Your task to perform on an android device: change text size in settings app Image 0: 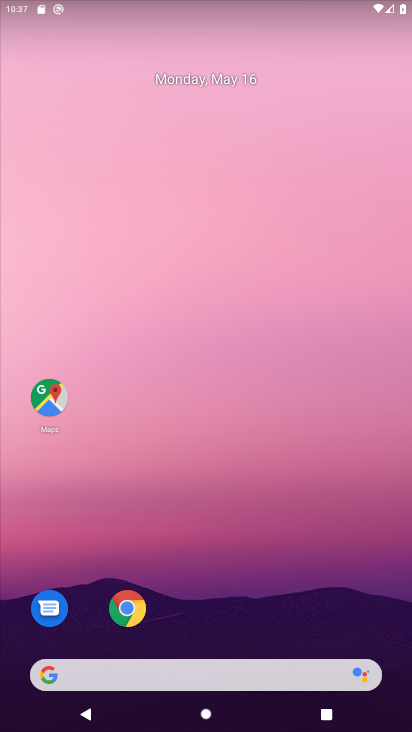
Step 0: drag from (319, 594) to (314, 78)
Your task to perform on an android device: change text size in settings app Image 1: 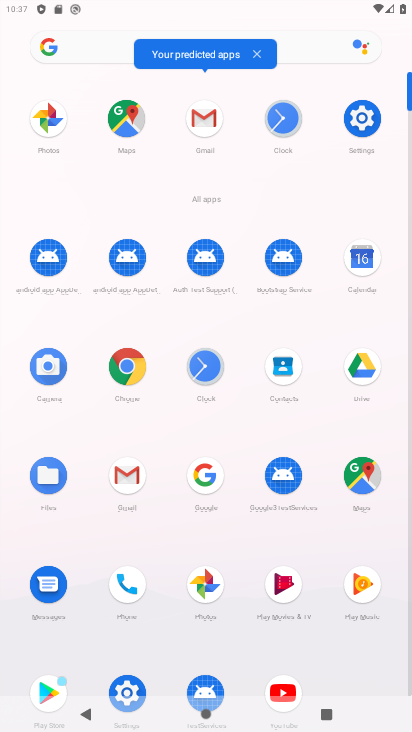
Step 1: click (356, 118)
Your task to perform on an android device: change text size in settings app Image 2: 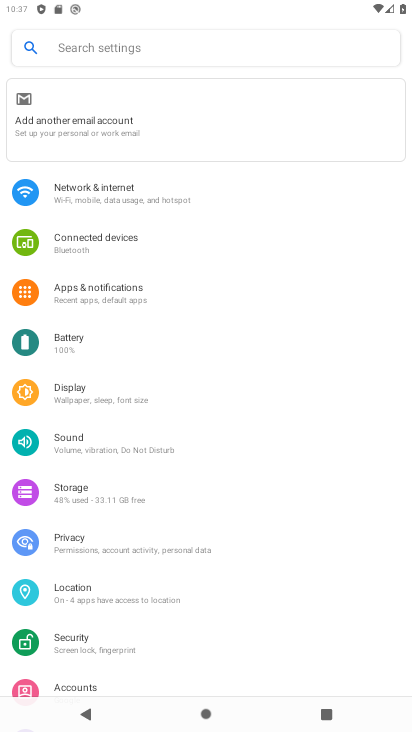
Step 2: click (67, 399)
Your task to perform on an android device: change text size in settings app Image 3: 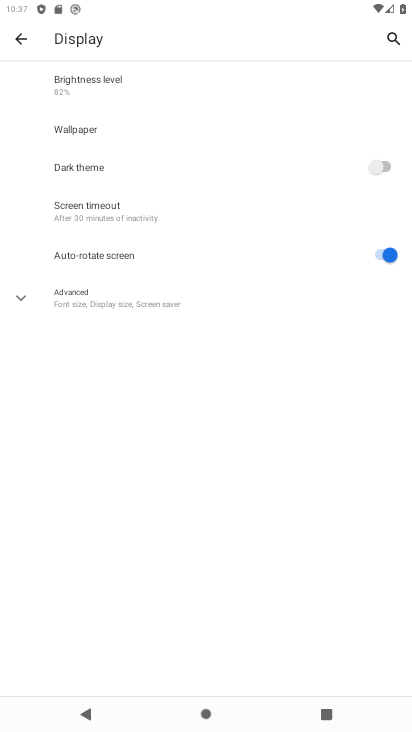
Step 3: click (114, 302)
Your task to perform on an android device: change text size in settings app Image 4: 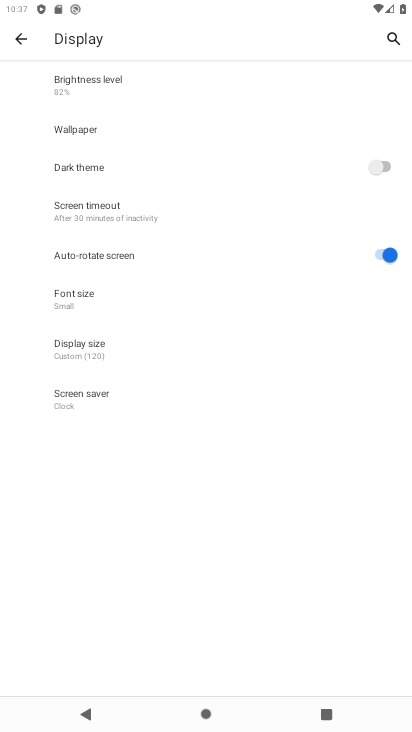
Step 4: click (109, 298)
Your task to perform on an android device: change text size in settings app Image 5: 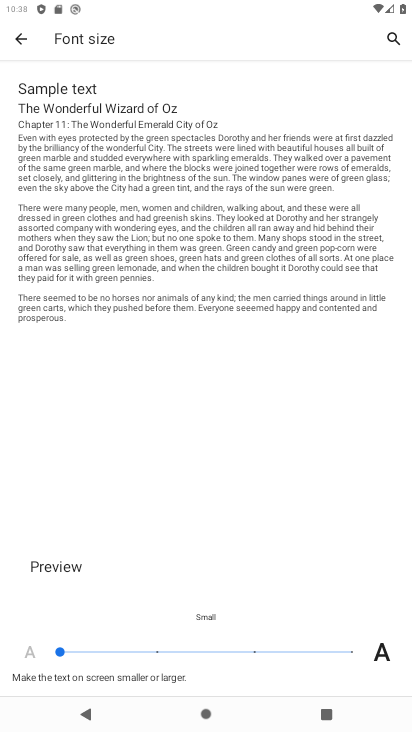
Step 5: click (151, 648)
Your task to perform on an android device: change text size in settings app Image 6: 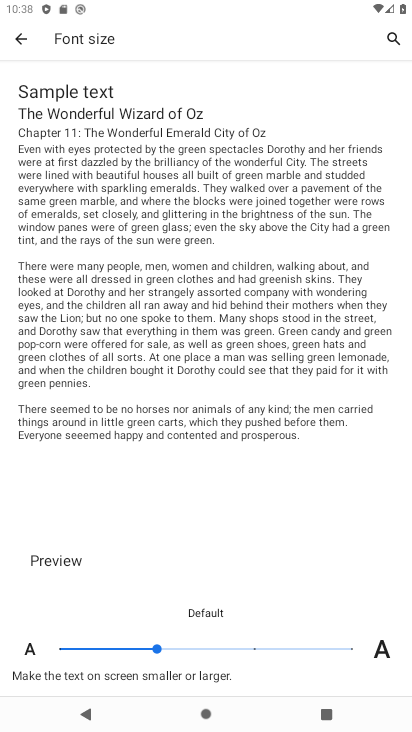
Step 6: task complete